Your task to perform on an android device: Go to calendar. Show me events next week Image 0: 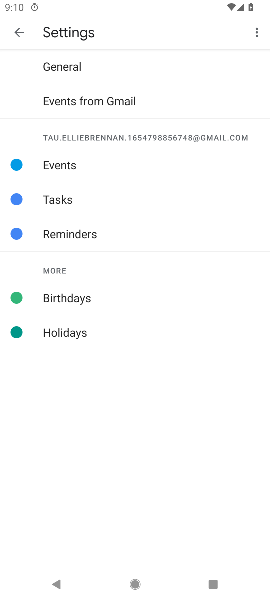
Step 0: press home button
Your task to perform on an android device: Go to calendar. Show me events next week Image 1: 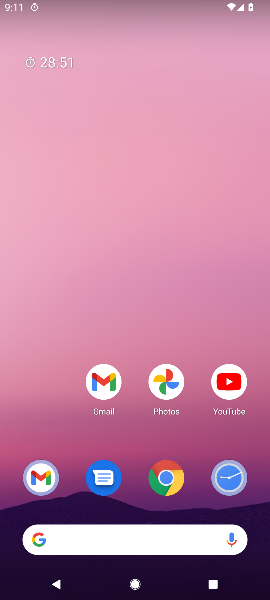
Step 1: drag from (138, 450) to (162, 0)
Your task to perform on an android device: Go to calendar. Show me events next week Image 2: 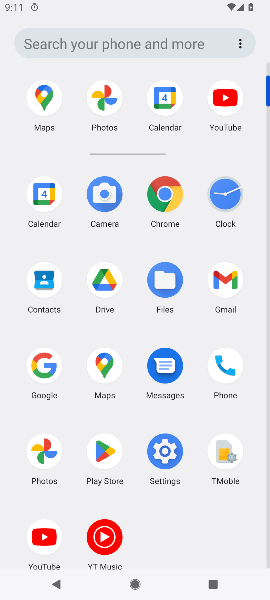
Step 2: click (37, 197)
Your task to perform on an android device: Go to calendar. Show me events next week Image 3: 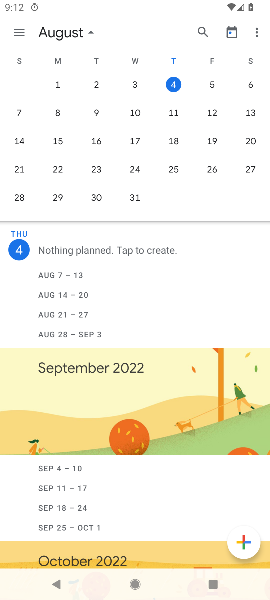
Step 3: click (174, 119)
Your task to perform on an android device: Go to calendar. Show me events next week Image 4: 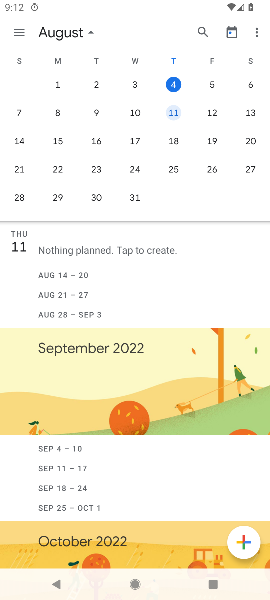
Step 4: task complete